Your task to perform on an android device: Show the shopping cart on newegg. Search for "apple airpods pro" on newegg, select the first entry, and add it to the cart. Image 0: 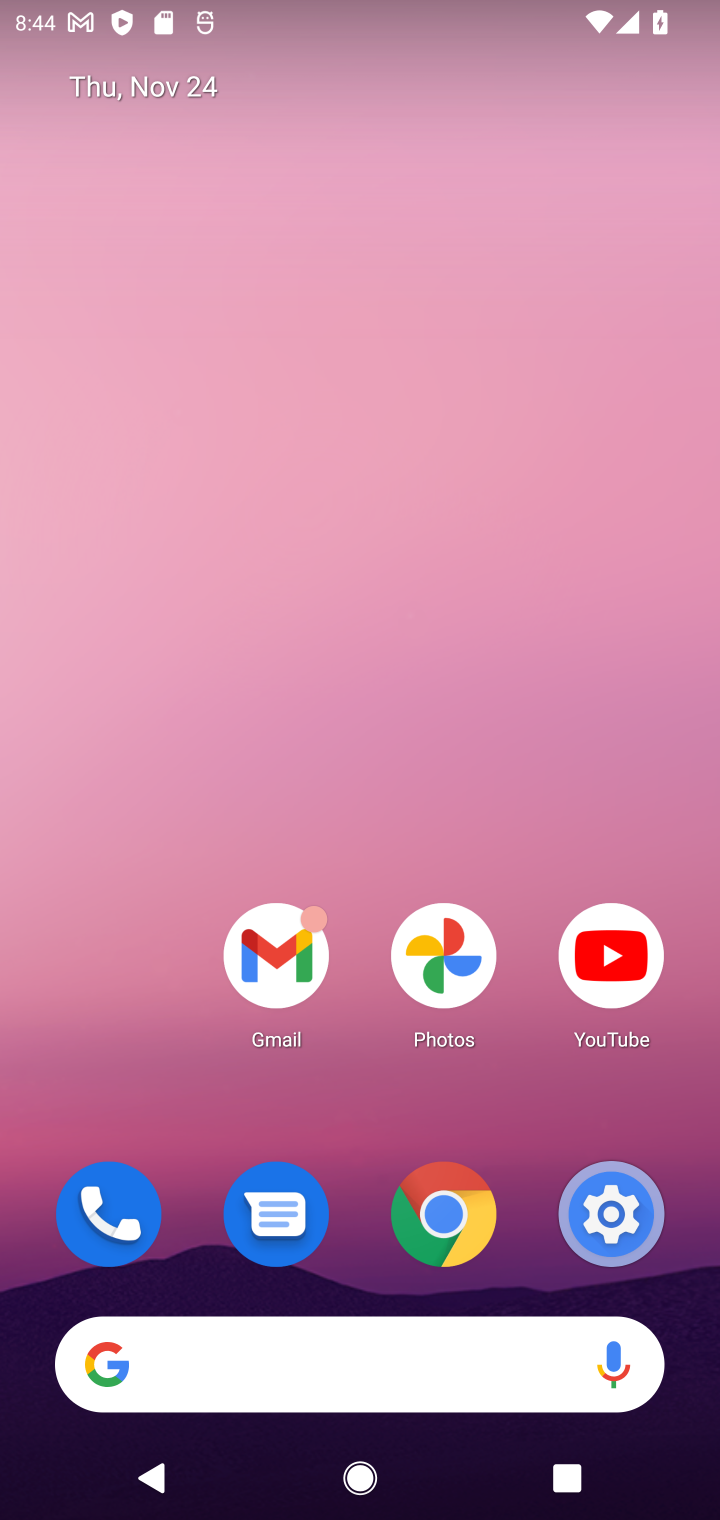
Step 0: click (363, 1342)
Your task to perform on an android device: Show the shopping cart on newegg. Search for "apple airpods pro" on newegg, select the first entry, and add it to the cart. Image 1: 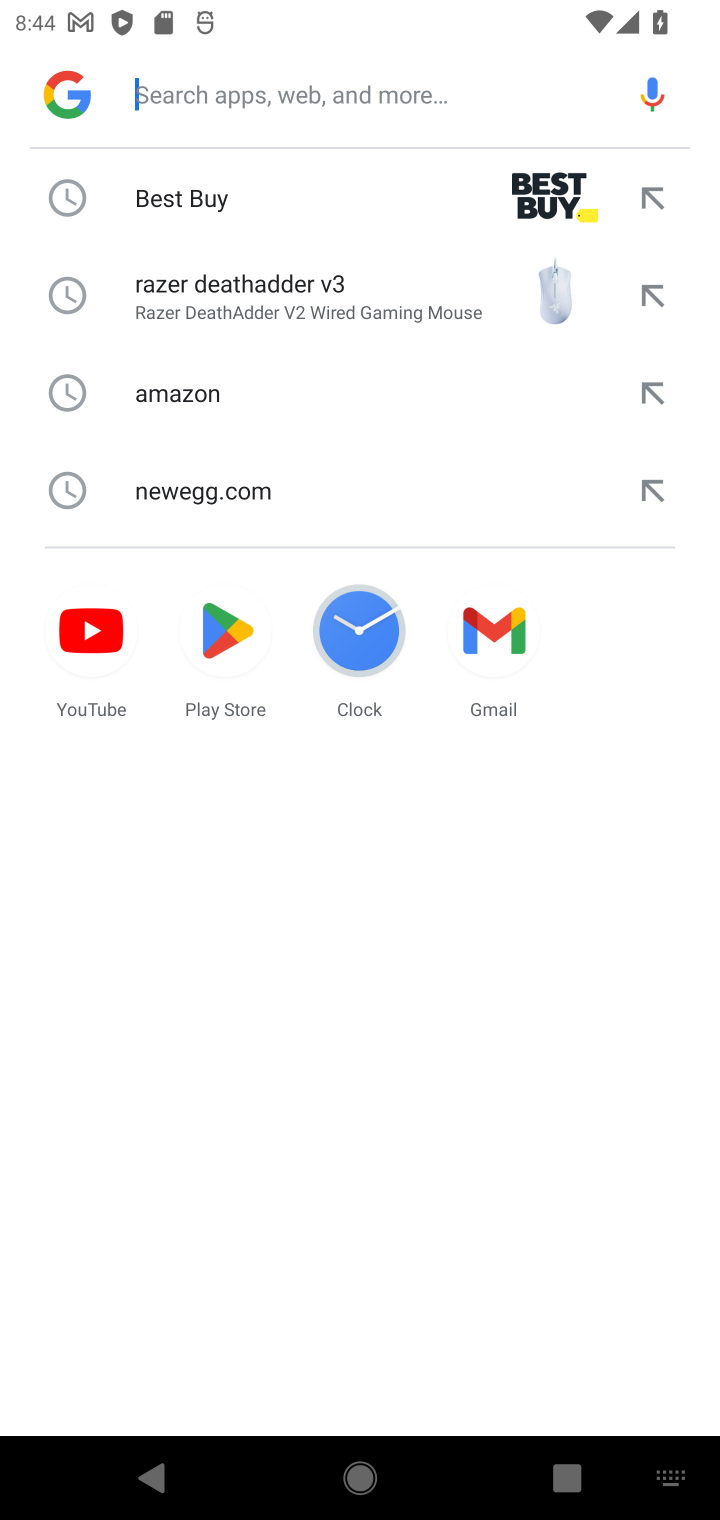
Step 1: type "newegg.com"
Your task to perform on an android device: Show the shopping cart on newegg. Search for "apple airpods pro" on newegg, select the first entry, and add it to the cart. Image 2: 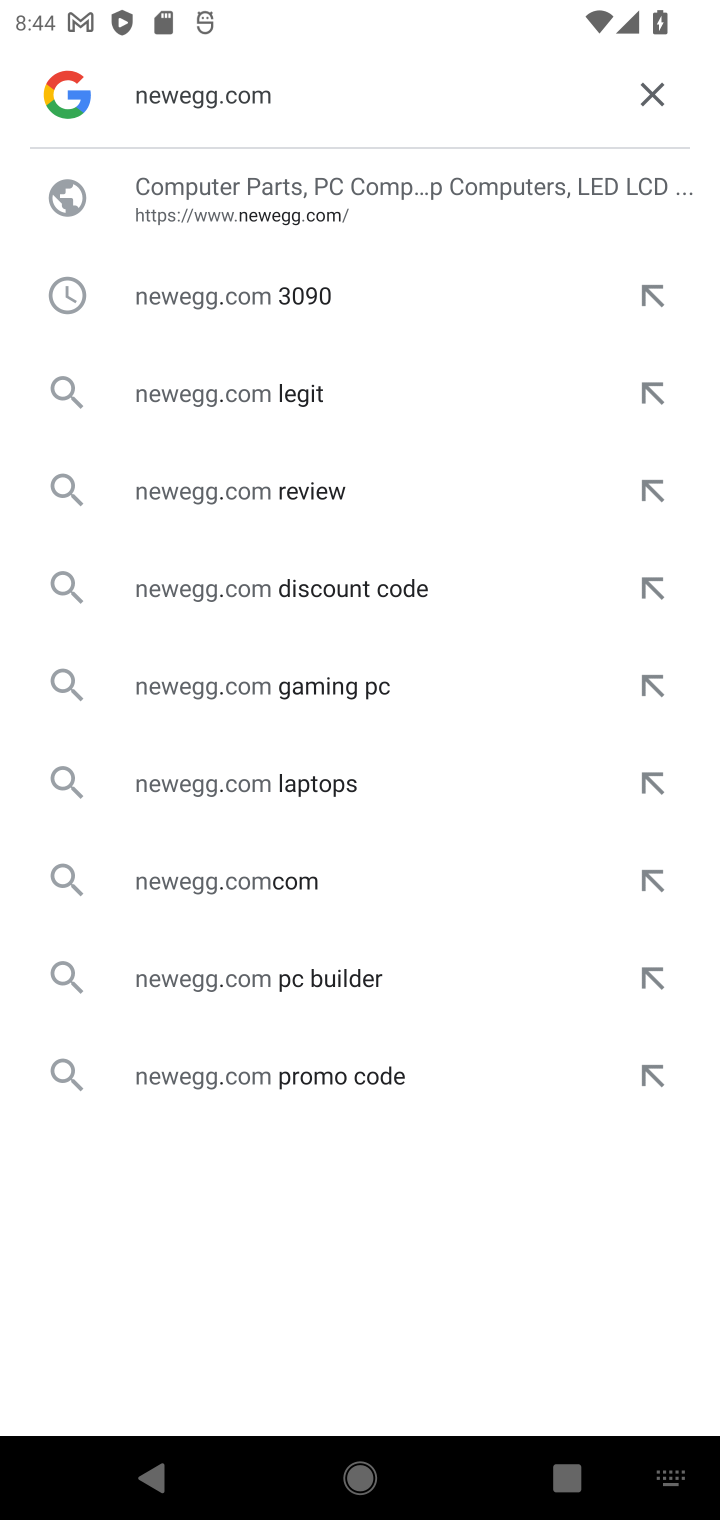
Step 2: click (299, 179)
Your task to perform on an android device: Show the shopping cart on newegg. Search for "apple airpods pro" on newegg, select the first entry, and add it to the cart. Image 3: 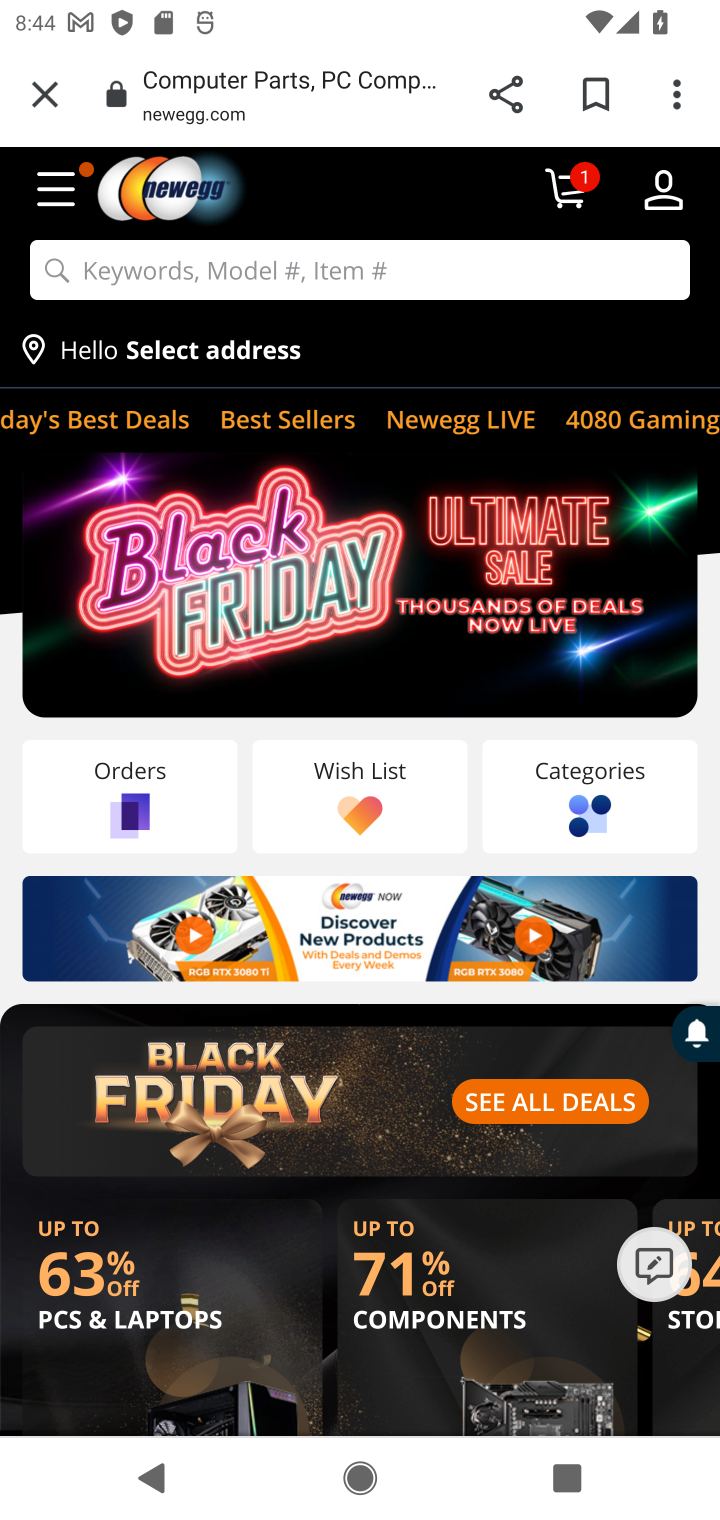
Step 3: click (244, 294)
Your task to perform on an android device: Show the shopping cart on newegg. Search for "apple airpods pro" on newegg, select the first entry, and add it to the cart. Image 4: 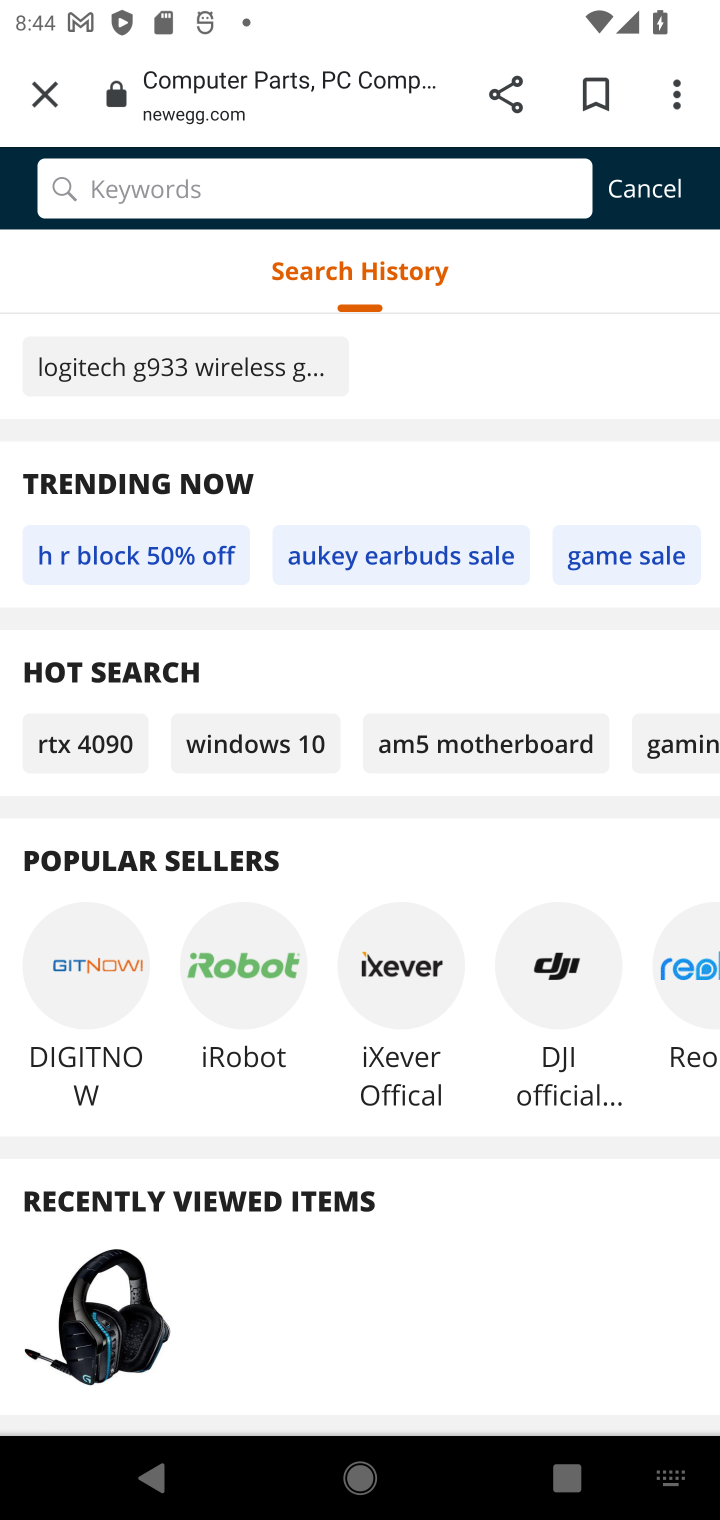
Step 4: type "apple airpods pro"
Your task to perform on an android device: Show the shopping cart on newegg. Search for "apple airpods pro" on newegg, select the first entry, and add it to the cart. Image 5: 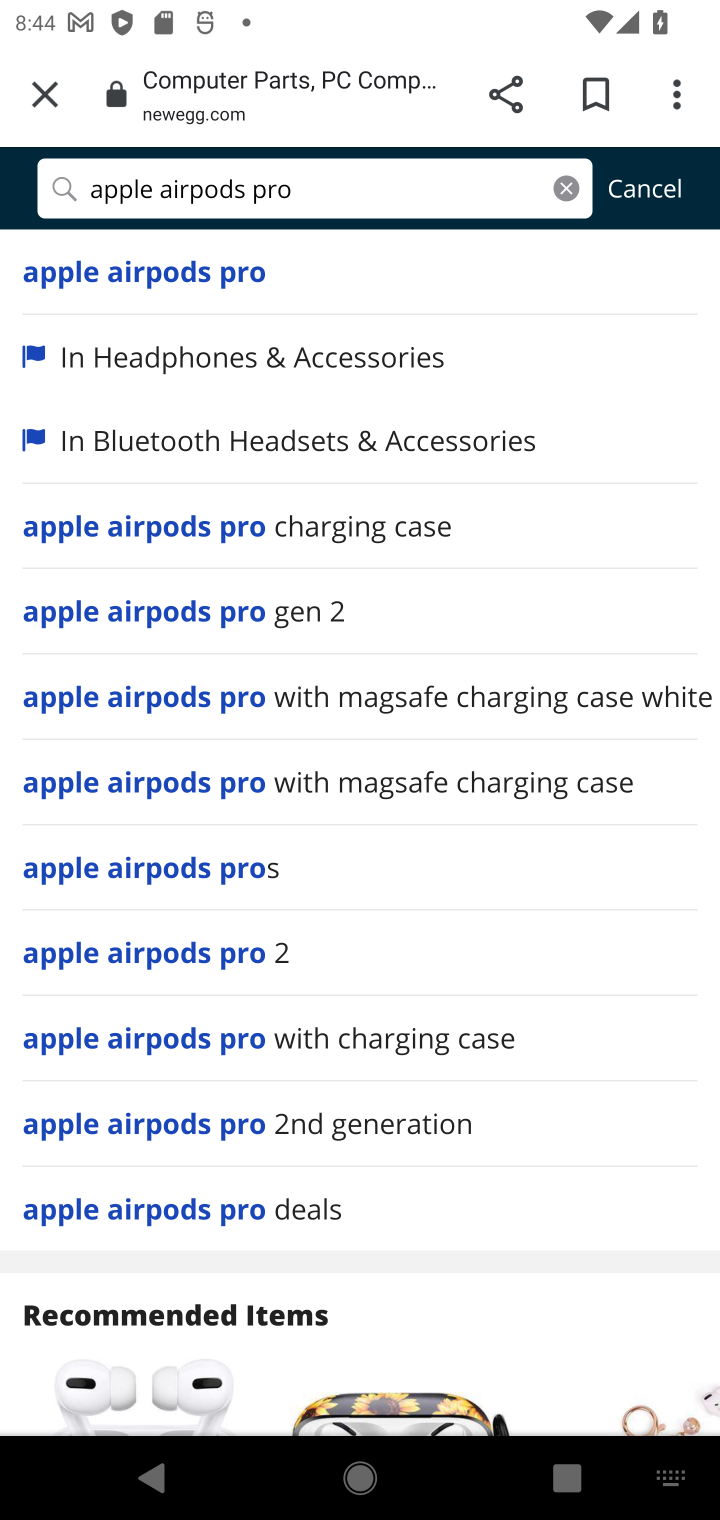
Step 5: type "'"
Your task to perform on an android device: Show the shopping cart on newegg. Search for "apple airpods pro" on newegg, select the first entry, and add it to the cart. Image 6: 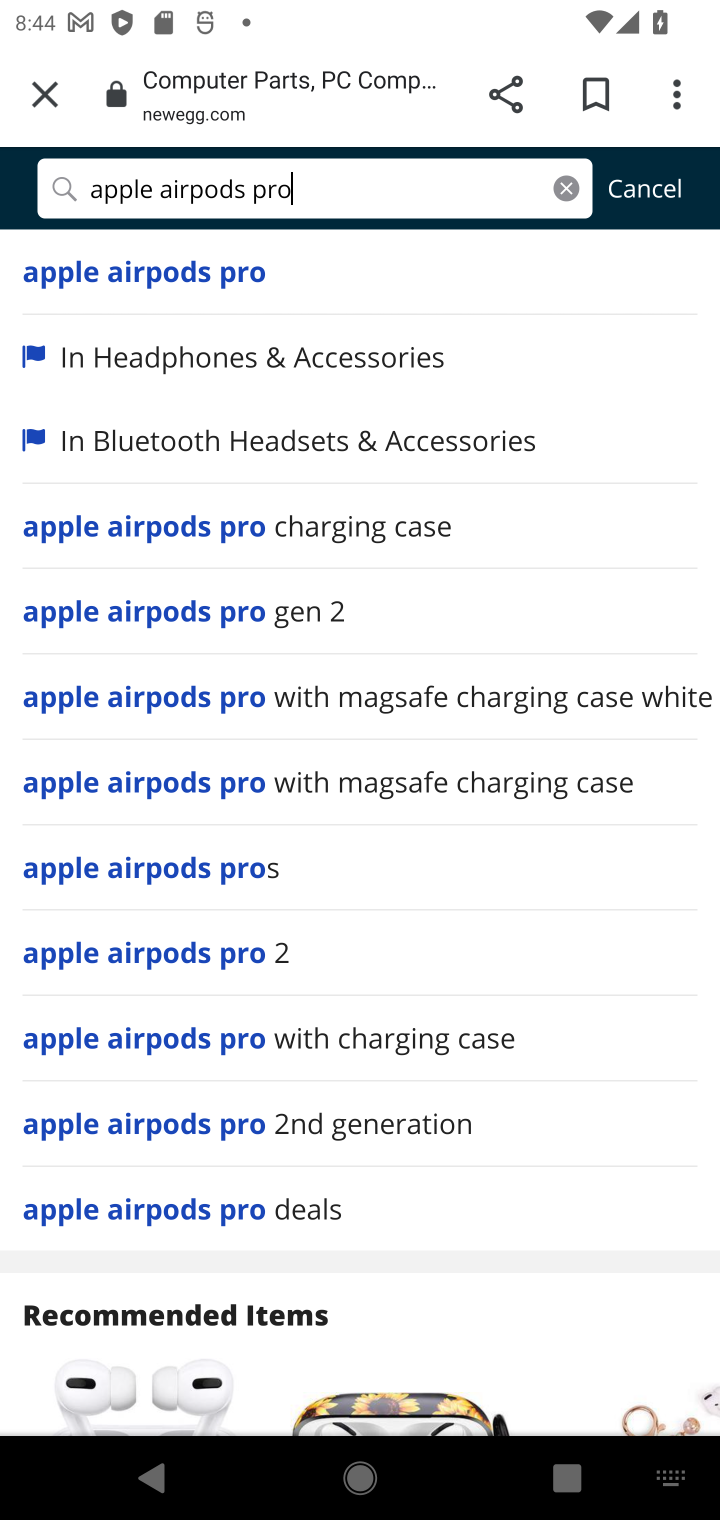
Step 6: click (278, 602)
Your task to perform on an android device: Show the shopping cart on newegg. Search for "apple airpods pro" on newegg, select the first entry, and add it to the cart. Image 7: 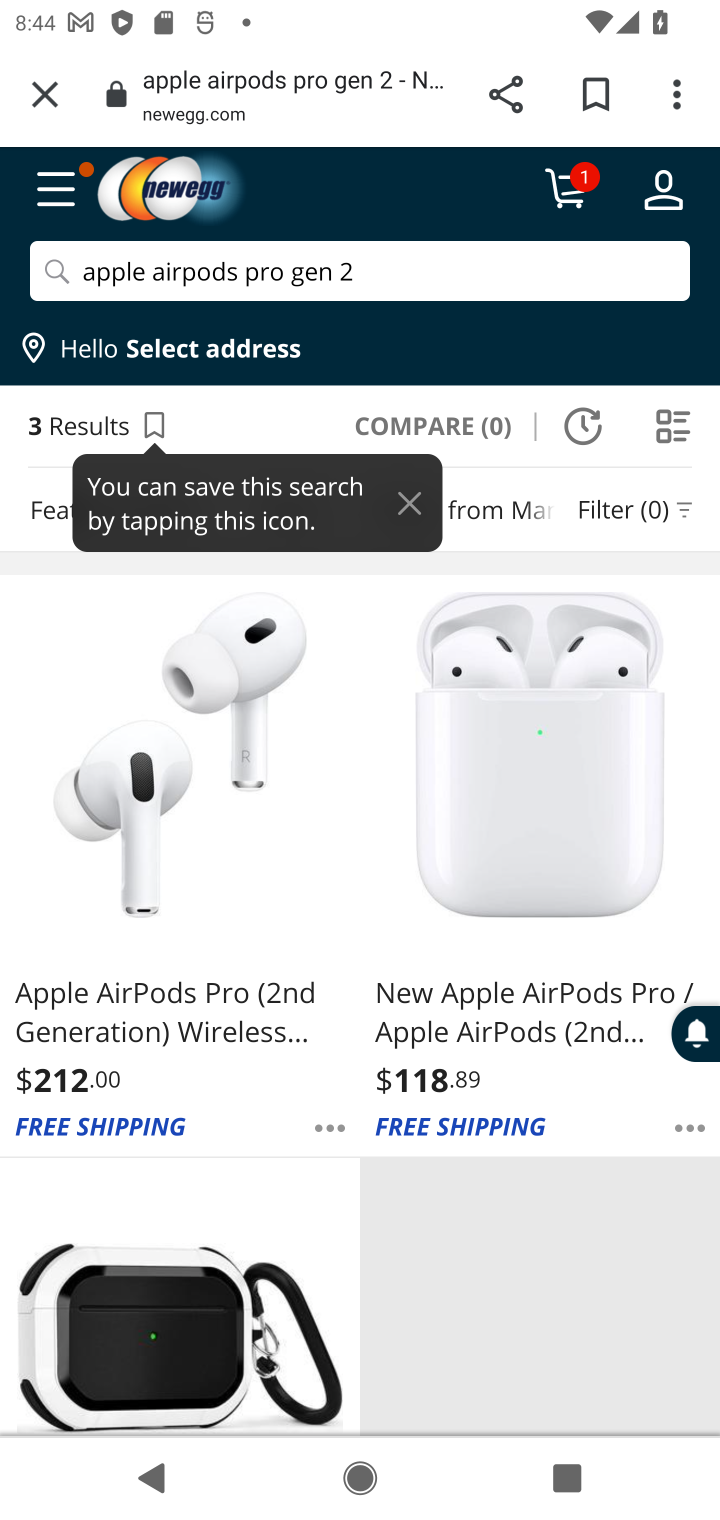
Step 7: click (119, 796)
Your task to perform on an android device: Show the shopping cart on newegg. Search for "apple airpods pro" on newegg, select the first entry, and add it to the cart. Image 8: 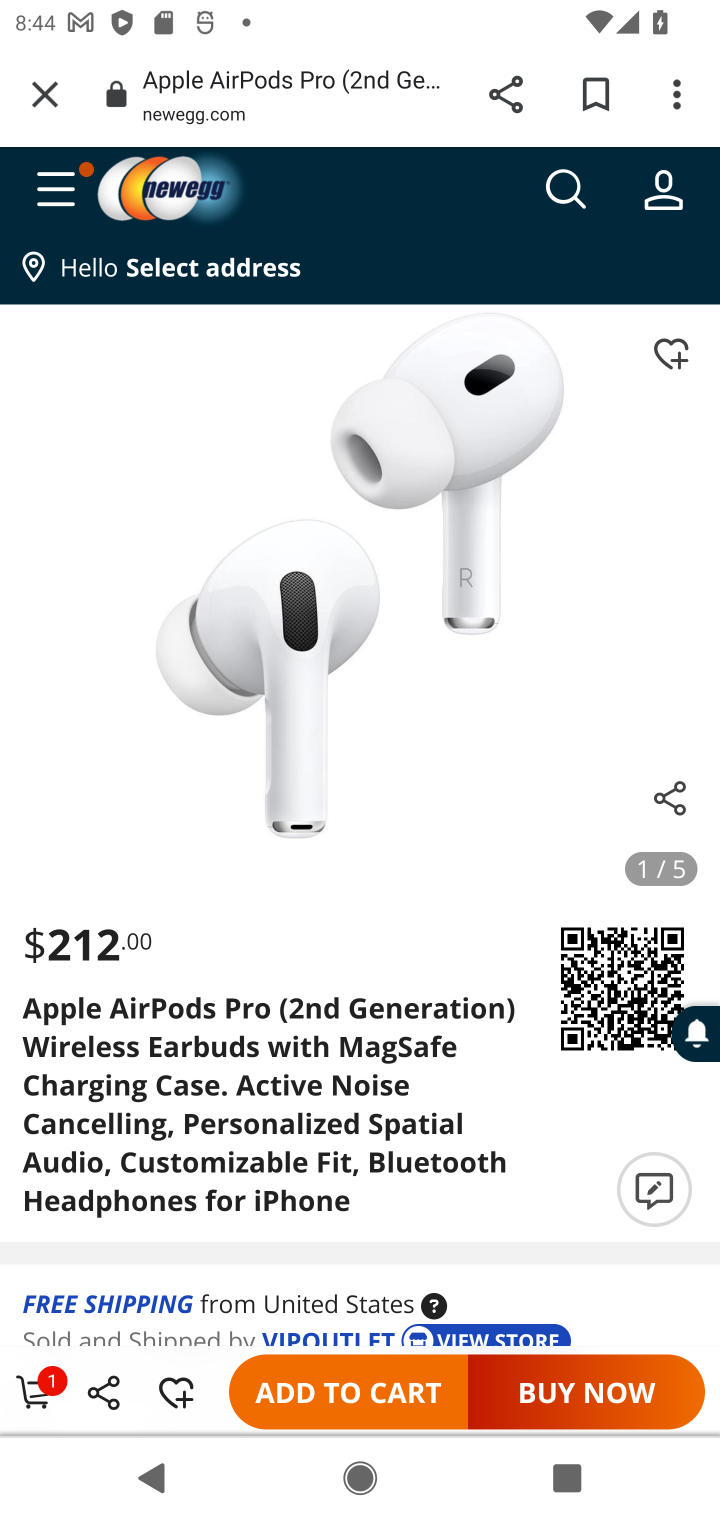
Step 8: click (317, 1410)
Your task to perform on an android device: Show the shopping cart on newegg. Search for "apple airpods pro" on newegg, select the first entry, and add it to the cart. Image 9: 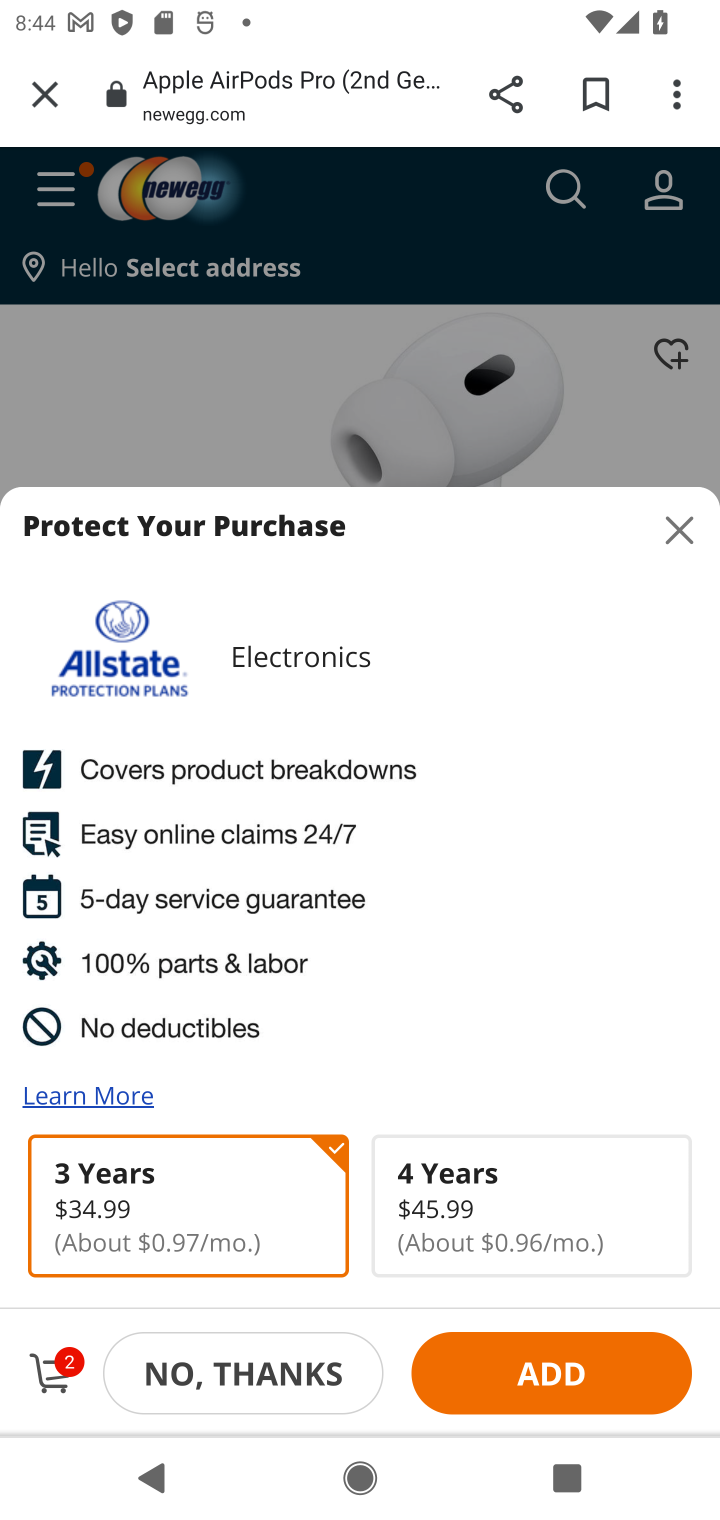
Step 9: click (293, 1384)
Your task to perform on an android device: Show the shopping cart on newegg. Search for "apple airpods pro" on newegg, select the first entry, and add it to the cart. Image 10: 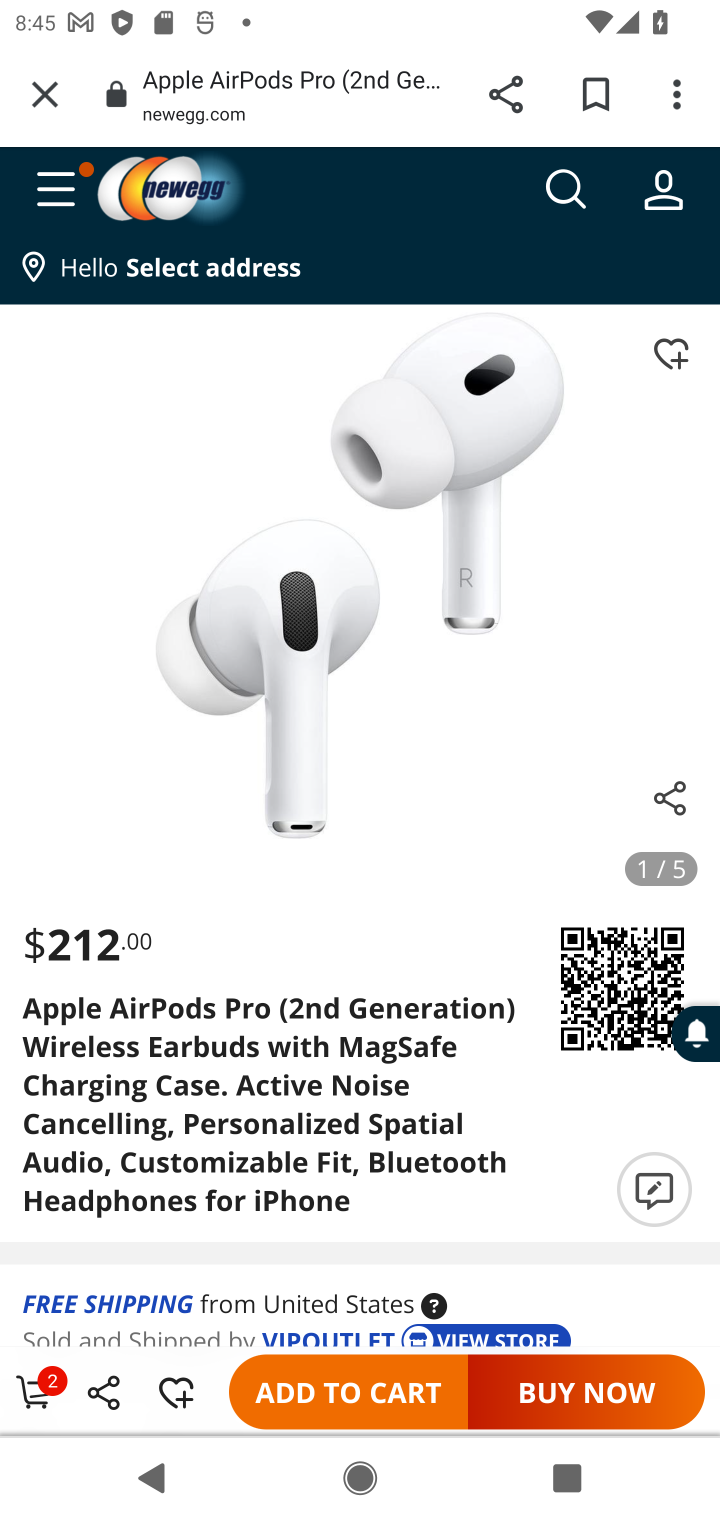
Step 10: task complete